Your task to perform on an android device: show emergency info Image 0: 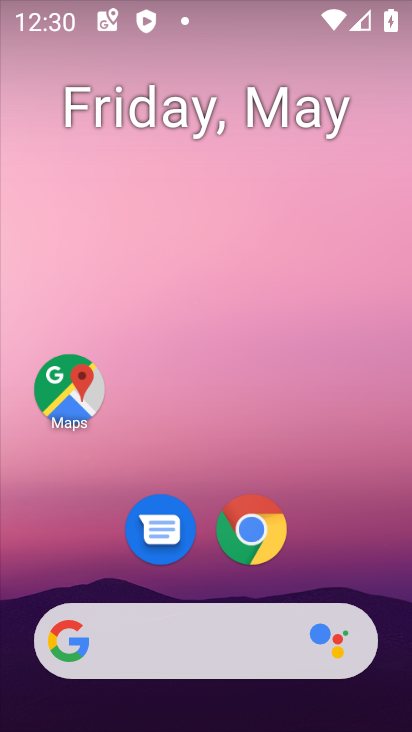
Step 0: drag from (196, 322) to (52, 78)
Your task to perform on an android device: show emergency info Image 1: 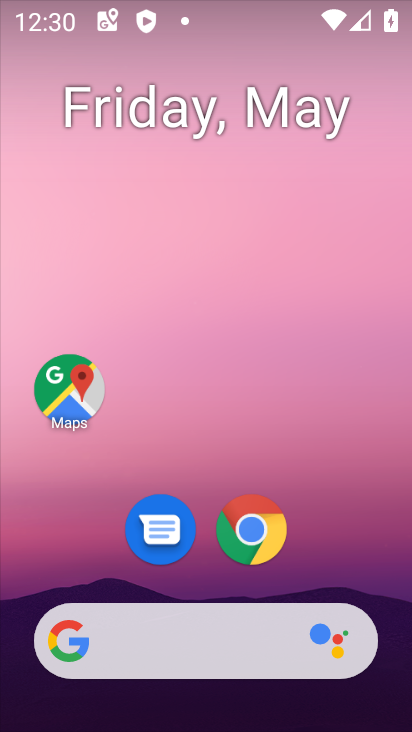
Step 1: drag from (345, 563) to (335, 75)
Your task to perform on an android device: show emergency info Image 2: 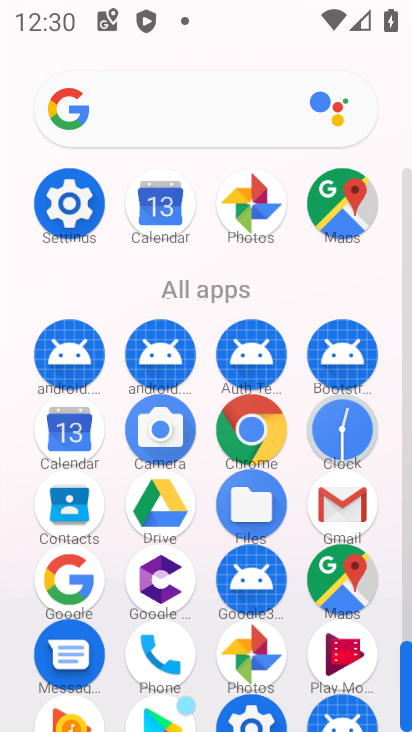
Step 2: click (51, 203)
Your task to perform on an android device: show emergency info Image 3: 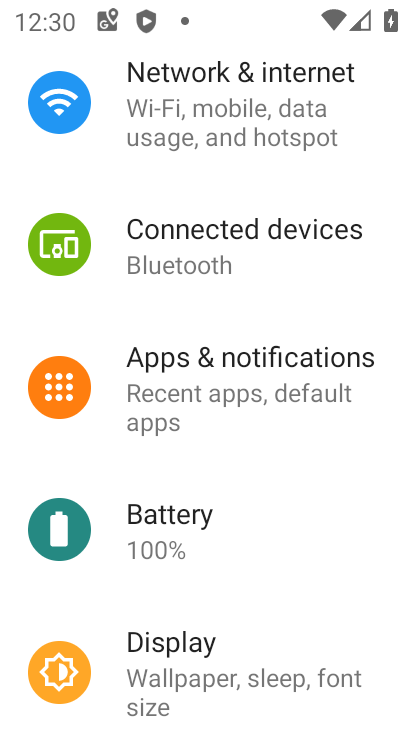
Step 3: drag from (267, 617) to (271, 138)
Your task to perform on an android device: show emergency info Image 4: 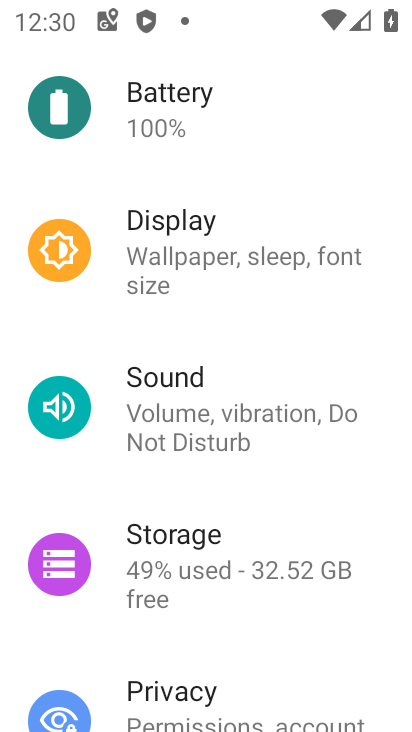
Step 4: drag from (256, 615) to (266, 214)
Your task to perform on an android device: show emergency info Image 5: 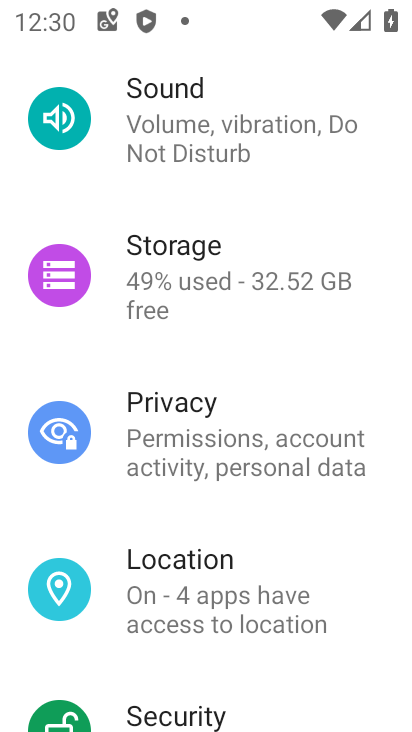
Step 5: drag from (197, 592) to (201, 127)
Your task to perform on an android device: show emergency info Image 6: 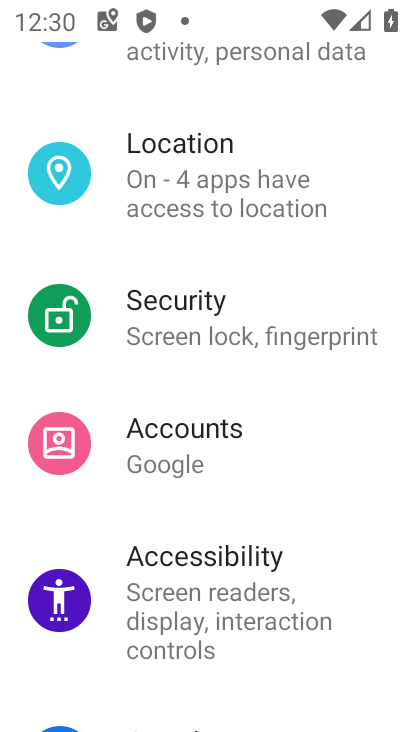
Step 6: drag from (172, 649) to (198, 252)
Your task to perform on an android device: show emergency info Image 7: 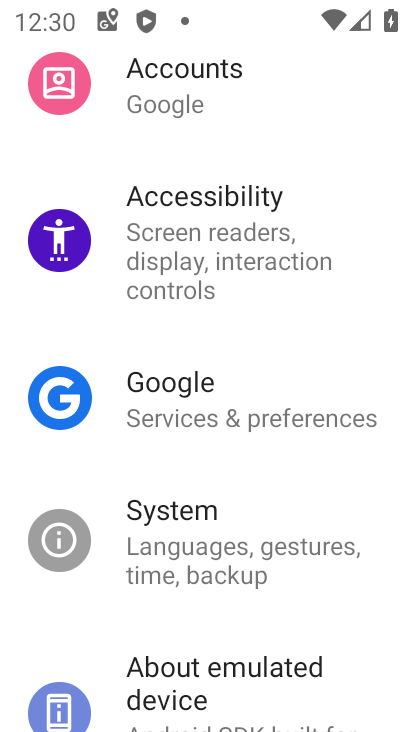
Step 7: drag from (172, 715) to (193, 330)
Your task to perform on an android device: show emergency info Image 8: 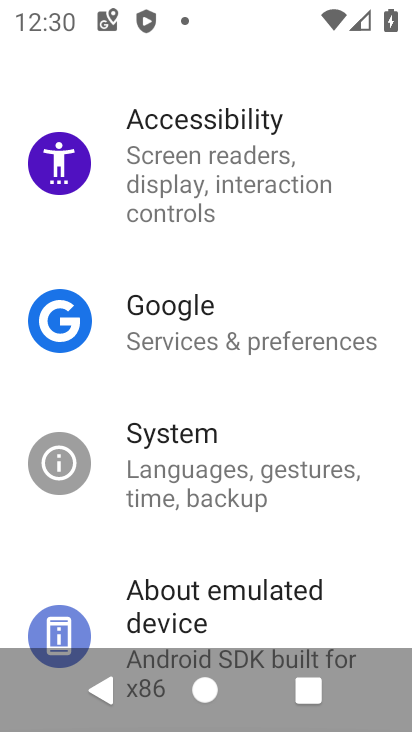
Step 8: click (172, 608)
Your task to perform on an android device: show emergency info Image 9: 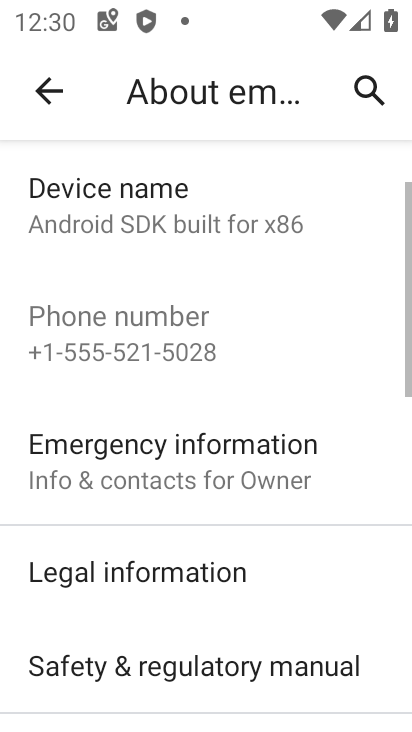
Step 9: click (152, 470)
Your task to perform on an android device: show emergency info Image 10: 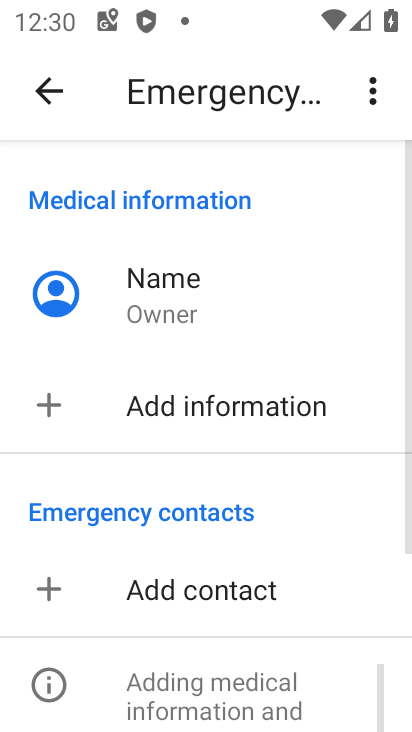
Step 10: task complete